Your task to perform on an android device: allow notifications from all sites in the chrome app Image 0: 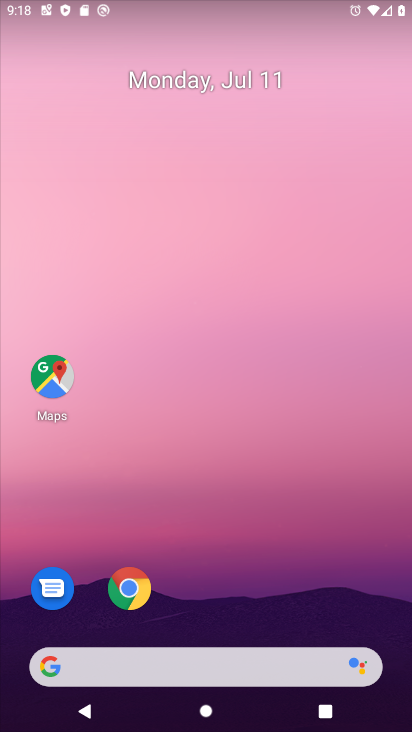
Step 0: click (125, 583)
Your task to perform on an android device: allow notifications from all sites in the chrome app Image 1: 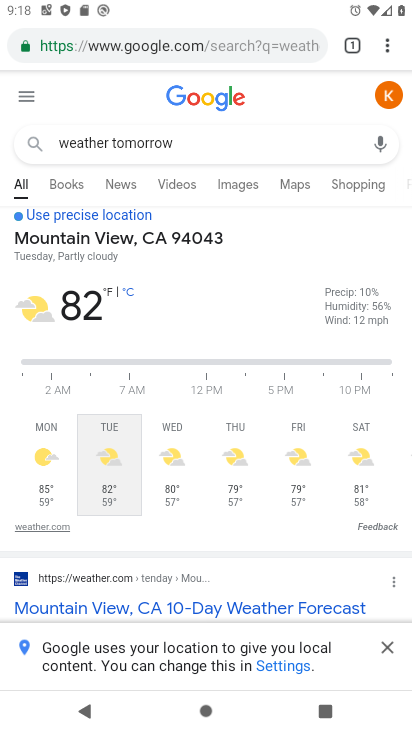
Step 1: drag from (387, 43) to (236, 503)
Your task to perform on an android device: allow notifications from all sites in the chrome app Image 2: 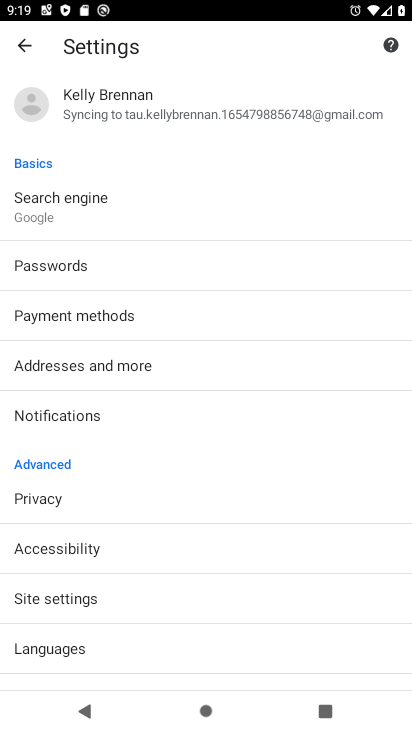
Step 2: click (76, 419)
Your task to perform on an android device: allow notifications from all sites in the chrome app Image 3: 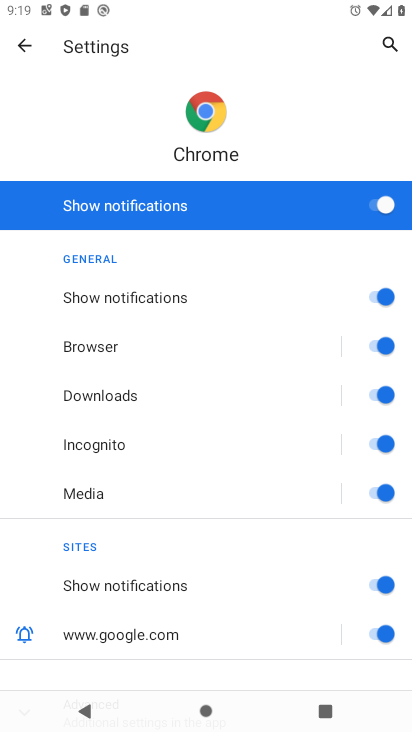
Step 3: task complete